Your task to perform on an android device: change the clock display to analog Image 0: 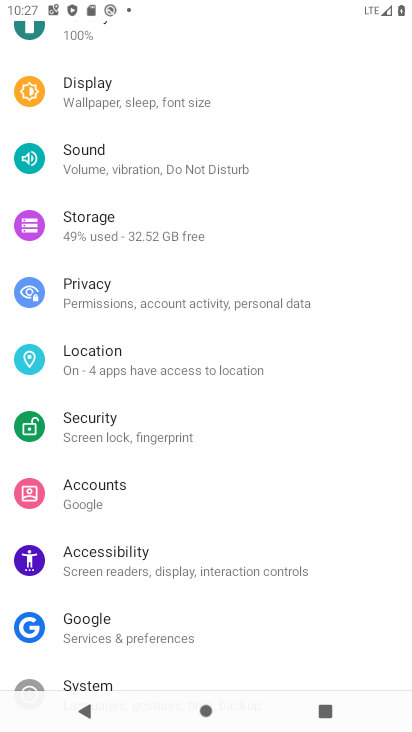
Step 0: press home button
Your task to perform on an android device: change the clock display to analog Image 1: 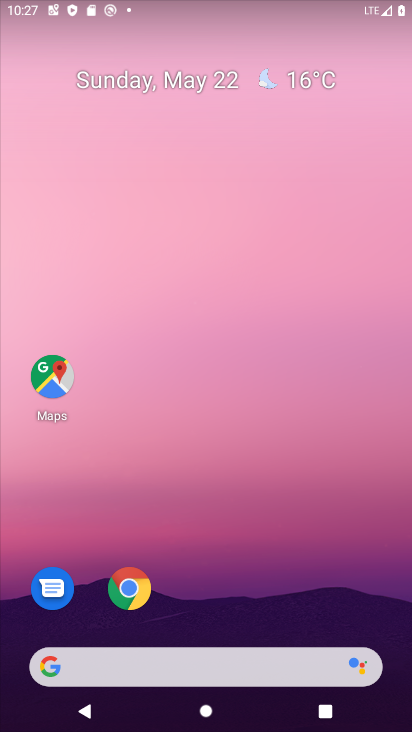
Step 1: drag from (222, 611) to (227, 196)
Your task to perform on an android device: change the clock display to analog Image 2: 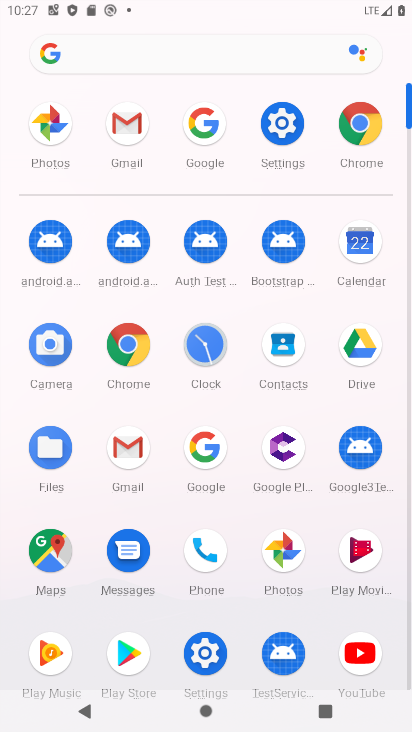
Step 2: click (190, 351)
Your task to perform on an android device: change the clock display to analog Image 3: 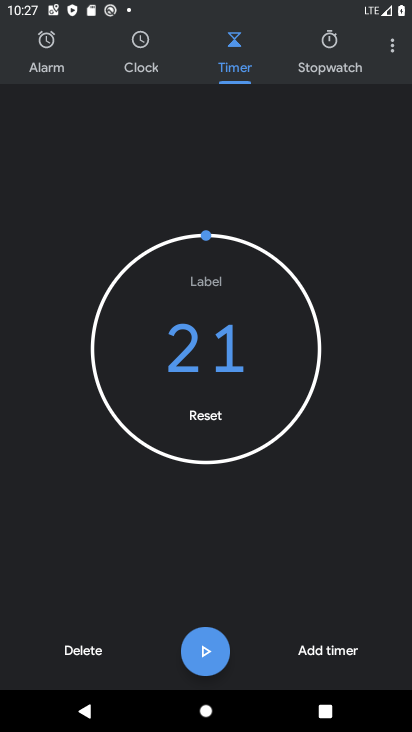
Step 3: click (387, 43)
Your task to perform on an android device: change the clock display to analog Image 4: 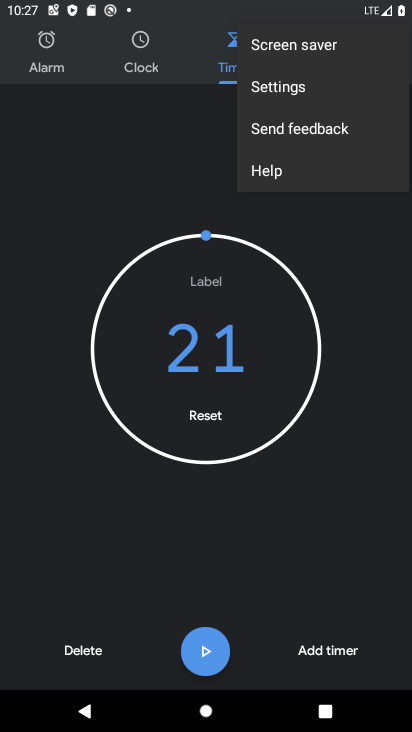
Step 4: click (286, 88)
Your task to perform on an android device: change the clock display to analog Image 5: 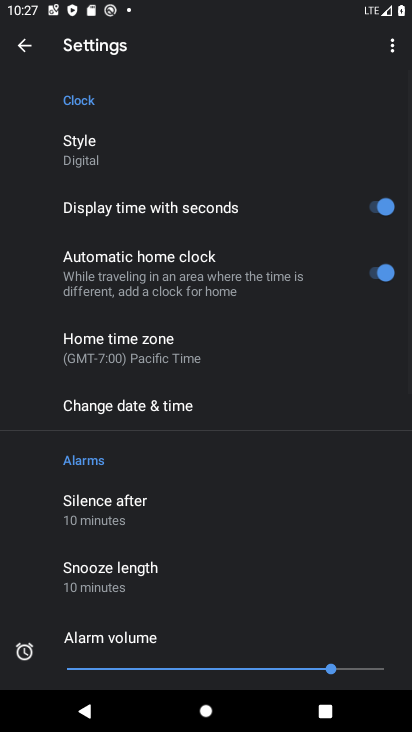
Step 5: click (170, 153)
Your task to perform on an android device: change the clock display to analog Image 6: 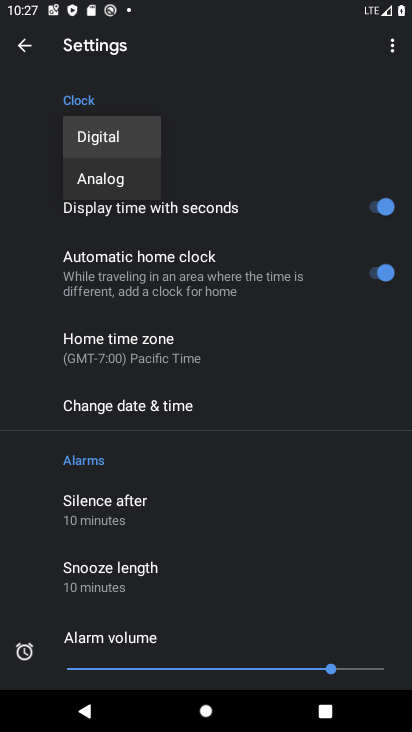
Step 6: click (127, 173)
Your task to perform on an android device: change the clock display to analog Image 7: 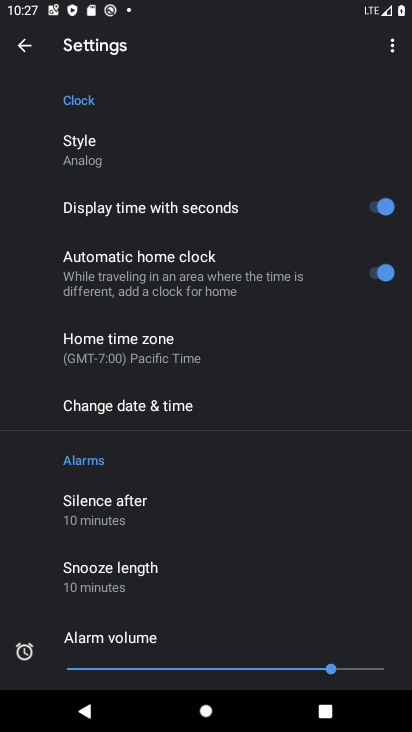
Step 7: task complete